Your task to perform on an android device: What's the weather today? Image 0: 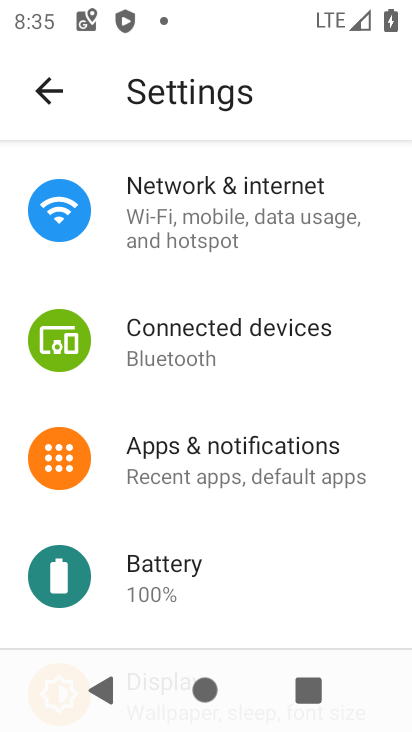
Step 0: press home button
Your task to perform on an android device: What's the weather today? Image 1: 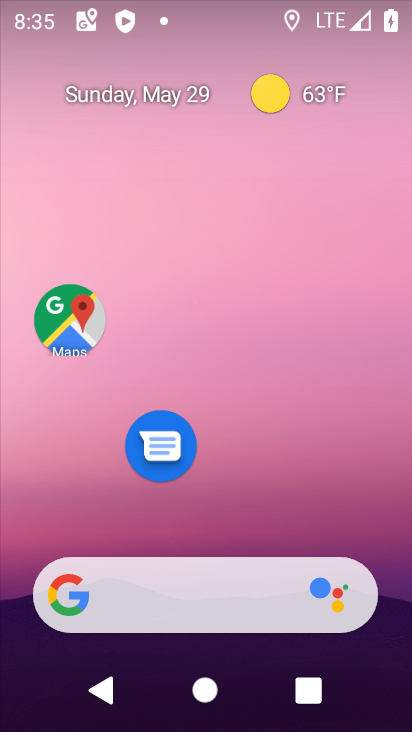
Step 1: drag from (227, 514) to (218, 185)
Your task to perform on an android device: What's the weather today? Image 2: 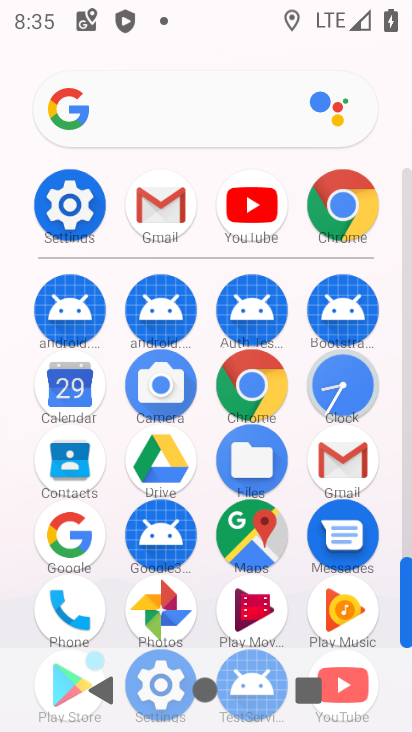
Step 2: click (76, 518)
Your task to perform on an android device: What's the weather today? Image 3: 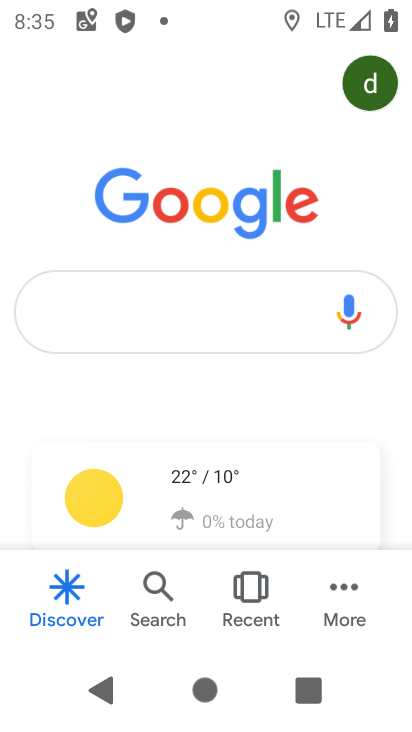
Step 3: drag from (189, 487) to (198, 289)
Your task to perform on an android device: What's the weather today? Image 4: 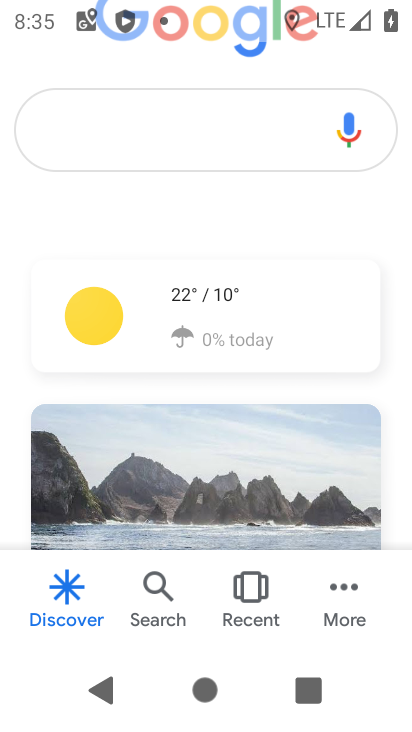
Step 4: drag from (161, 365) to (166, 267)
Your task to perform on an android device: What's the weather today? Image 5: 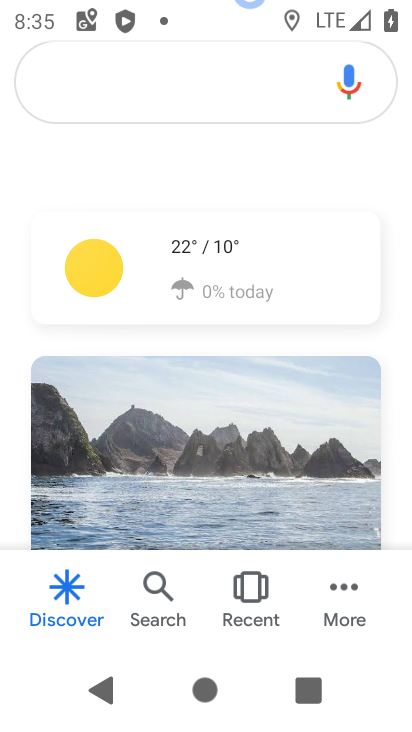
Step 5: click (180, 243)
Your task to perform on an android device: What's the weather today? Image 6: 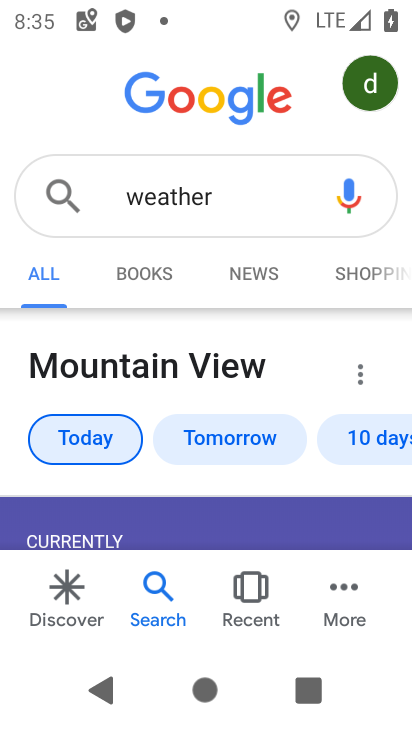
Step 6: task complete